Your task to perform on an android device: Open the Play Movies app and select the watchlist tab. Image 0: 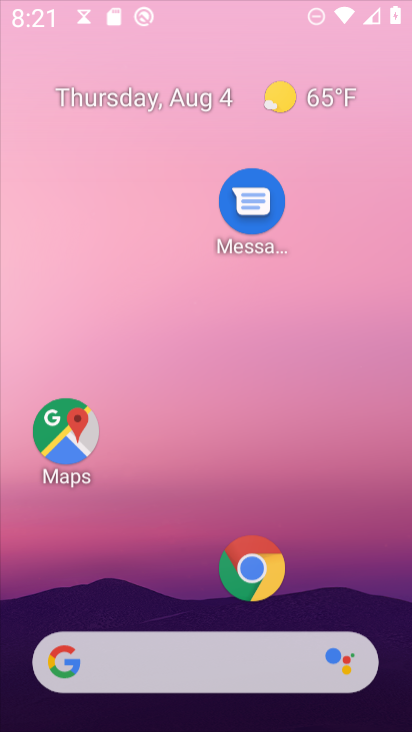
Step 0: press home button
Your task to perform on an android device: Open the Play Movies app and select the watchlist tab. Image 1: 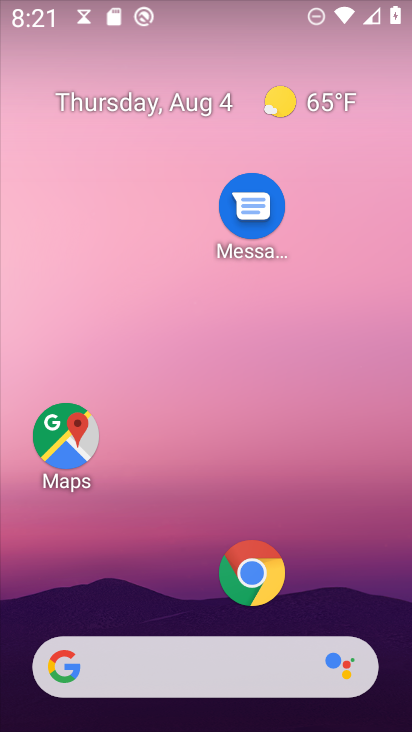
Step 1: drag from (151, 602) to (204, 262)
Your task to perform on an android device: Open the Play Movies app and select the watchlist tab. Image 2: 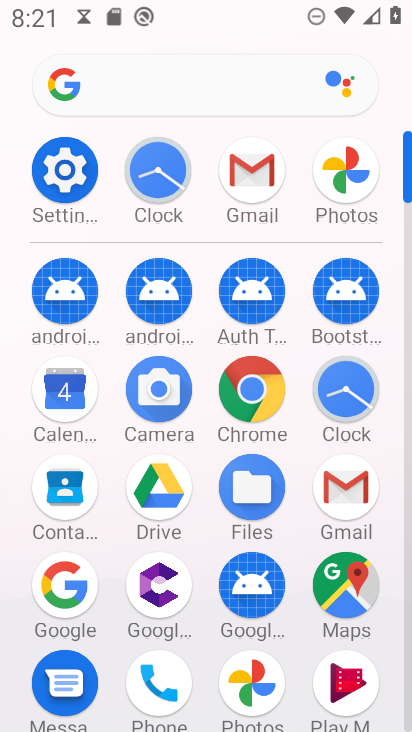
Step 2: click (349, 683)
Your task to perform on an android device: Open the Play Movies app and select the watchlist tab. Image 3: 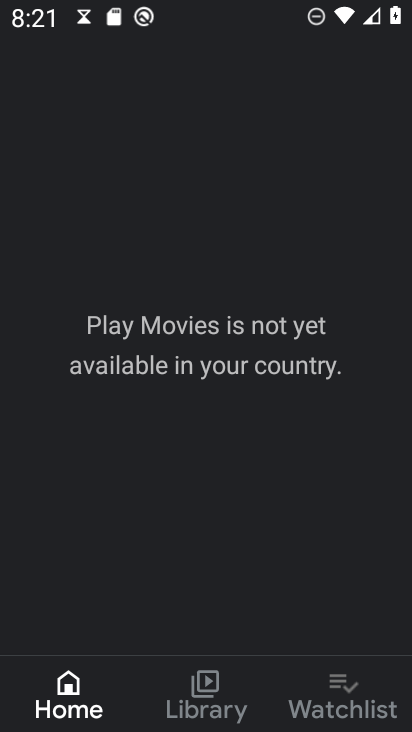
Step 3: click (340, 682)
Your task to perform on an android device: Open the Play Movies app and select the watchlist tab. Image 4: 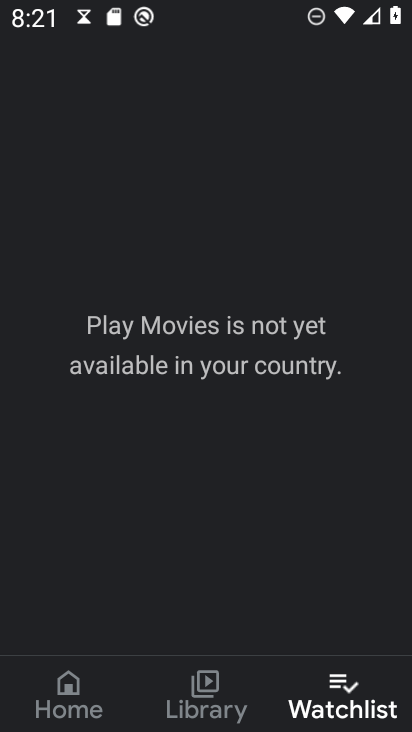
Step 4: task complete